Your task to perform on an android device: Open Chrome and go to the settings page Image 0: 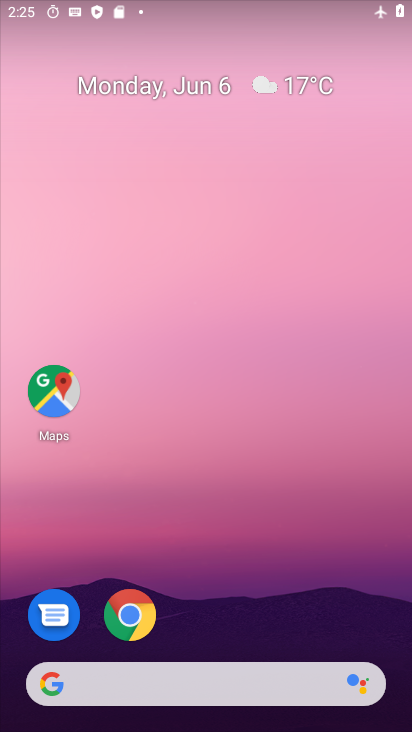
Step 0: click (136, 608)
Your task to perform on an android device: Open Chrome and go to the settings page Image 1: 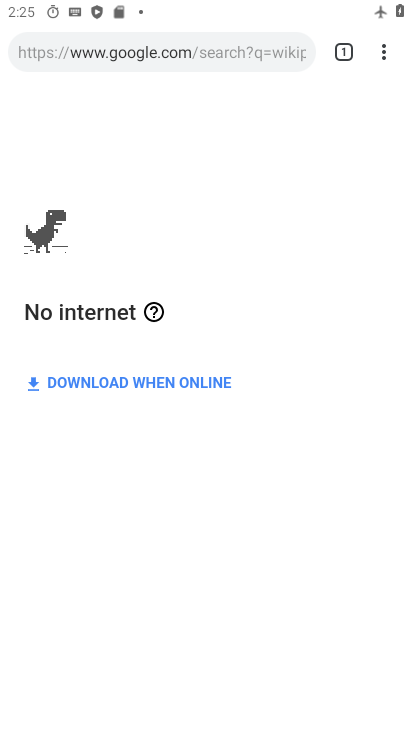
Step 1: click (378, 49)
Your task to perform on an android device: Open Chrome and go to the settings page Image 2: 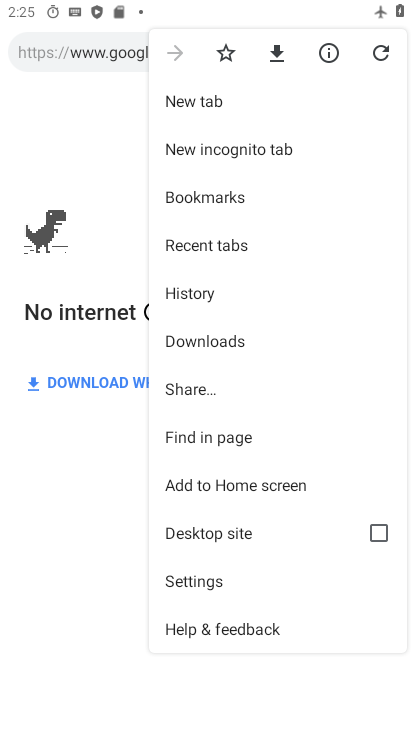
Step 2: click (211, 581)
Your task to perform on an android device: Open Chrome and go to the settings page Image 3: 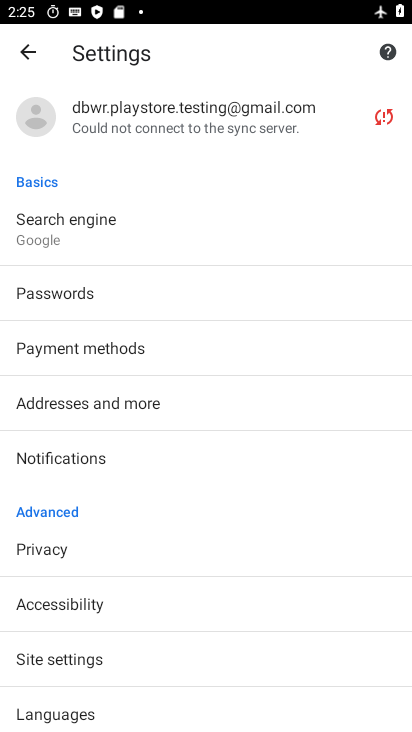
Step 3: task complete